Your task to perform on an android device: Open Google Chrome and open the bookmarks view Image 0: 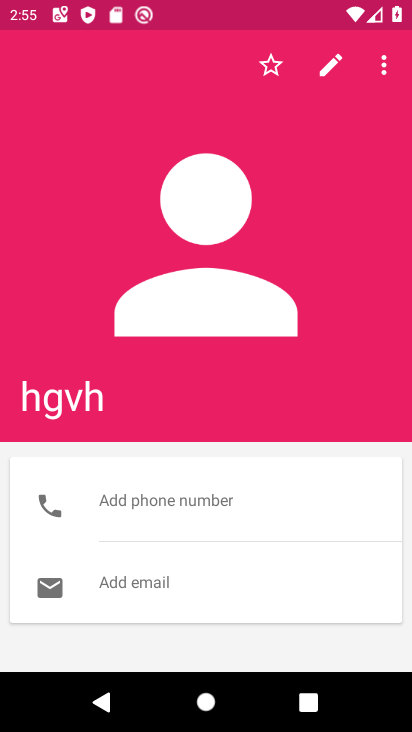
Step 0: drag from (263, 560) to (285, 171)
Your task to perform on an android device: Open Google Chrome and open the bookmarks view Image 1: 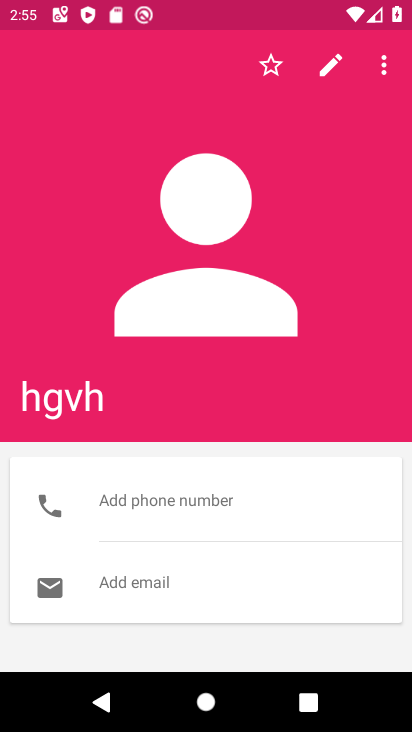
Step 1: press home button
Your task to perform on an android device: Open Google Chrome and open the bookmarks view Image 2: 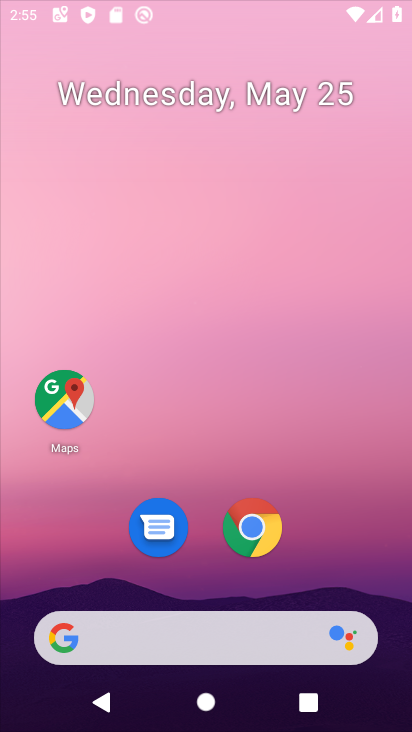
Step 2: drag from (182, 608) to (220, 98)
Your task to perform on an android device: Open Google Chrome and open the bookmarks view Image 3: 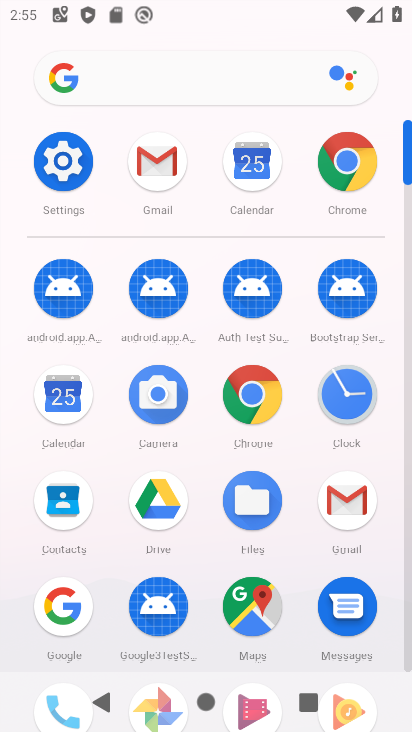
Step 3: click (248, 387)
Your task to perform on an android device: Open Google Chrome and open the bookmarks view Image 4: 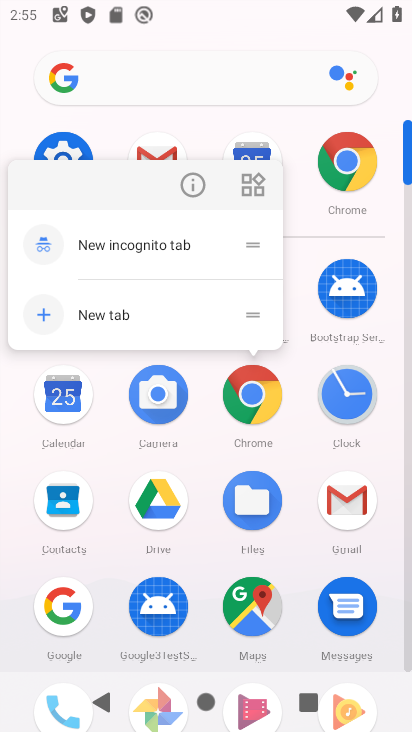
Step 4: click (192, 164)
Your task to perform on an android device: Open Google Chrome and open the bookmarks view Image 5: 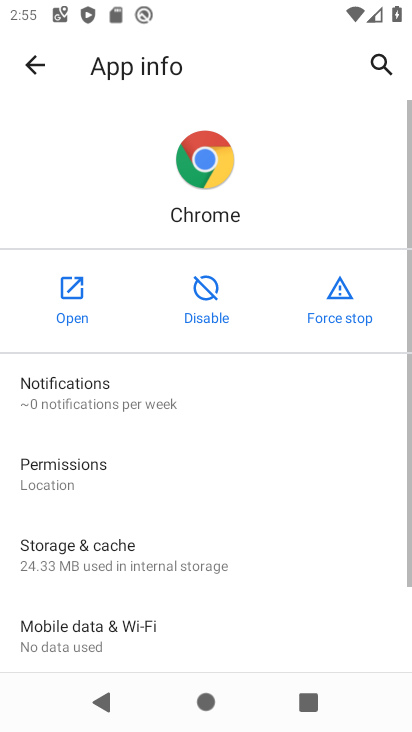
Step 5: click (48, 297)
Your task to perform on an android device: Open Google Chrome and open the bookmarks view Image 6: 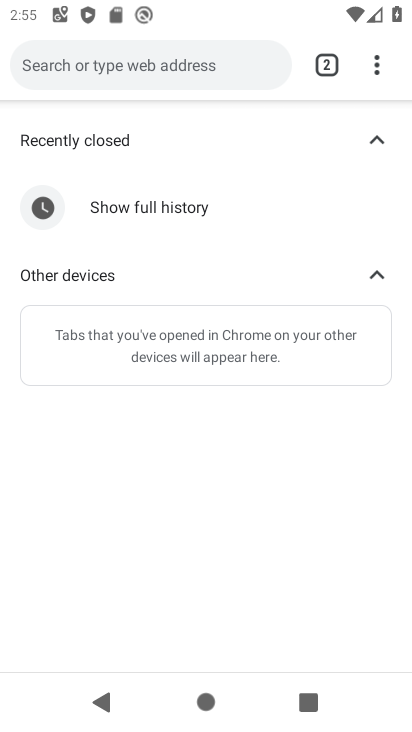
Step 6: click (380, 57)
Your task to perform on an android device: Open Google Chrome and open the bookmarks view Image 7: 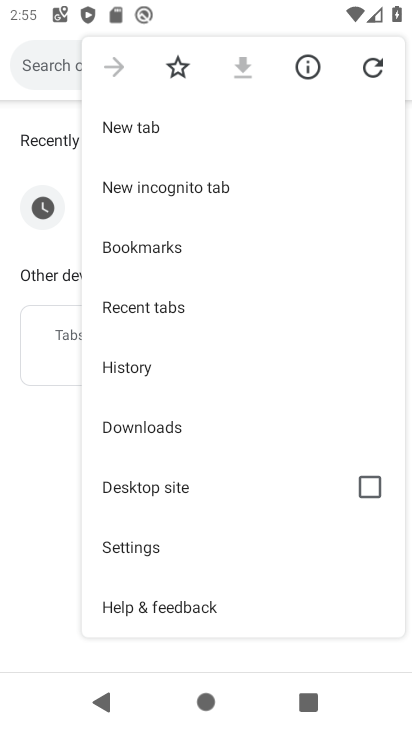
Step 7: click (175, 255)
Your task to perform on an android device: Open Google Chrome and open the bookmarks view Image 8: 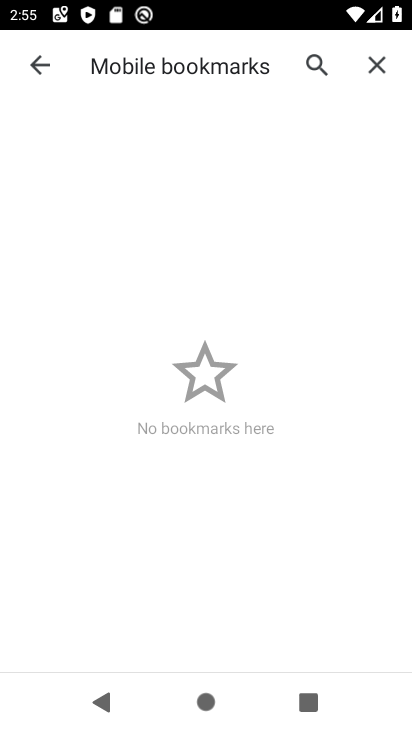
Step 8: task complete